Your task to perform on an android device: open app "Indeed Job Search" Image 0: 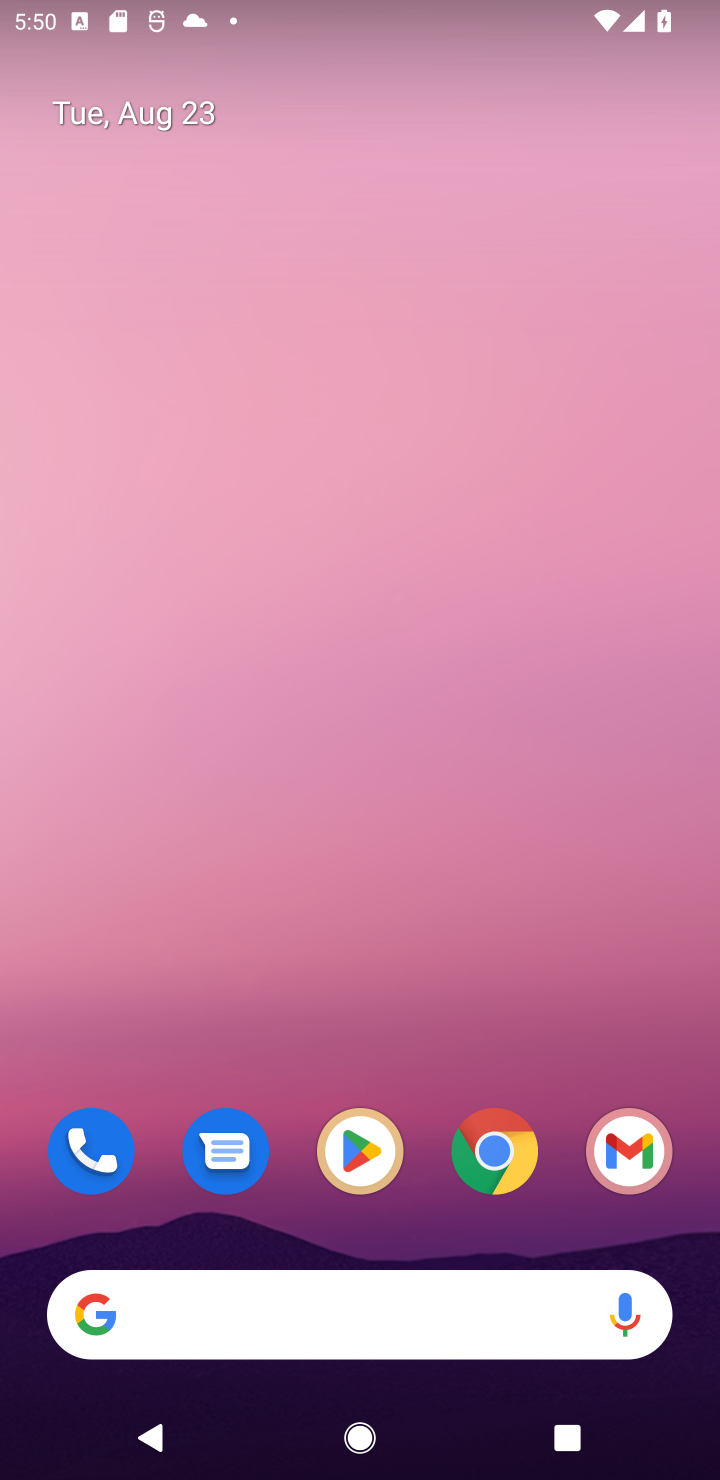
Step 0: press home button
Your task to perform on an android device: open app "Indeed Job Search" Image 1: 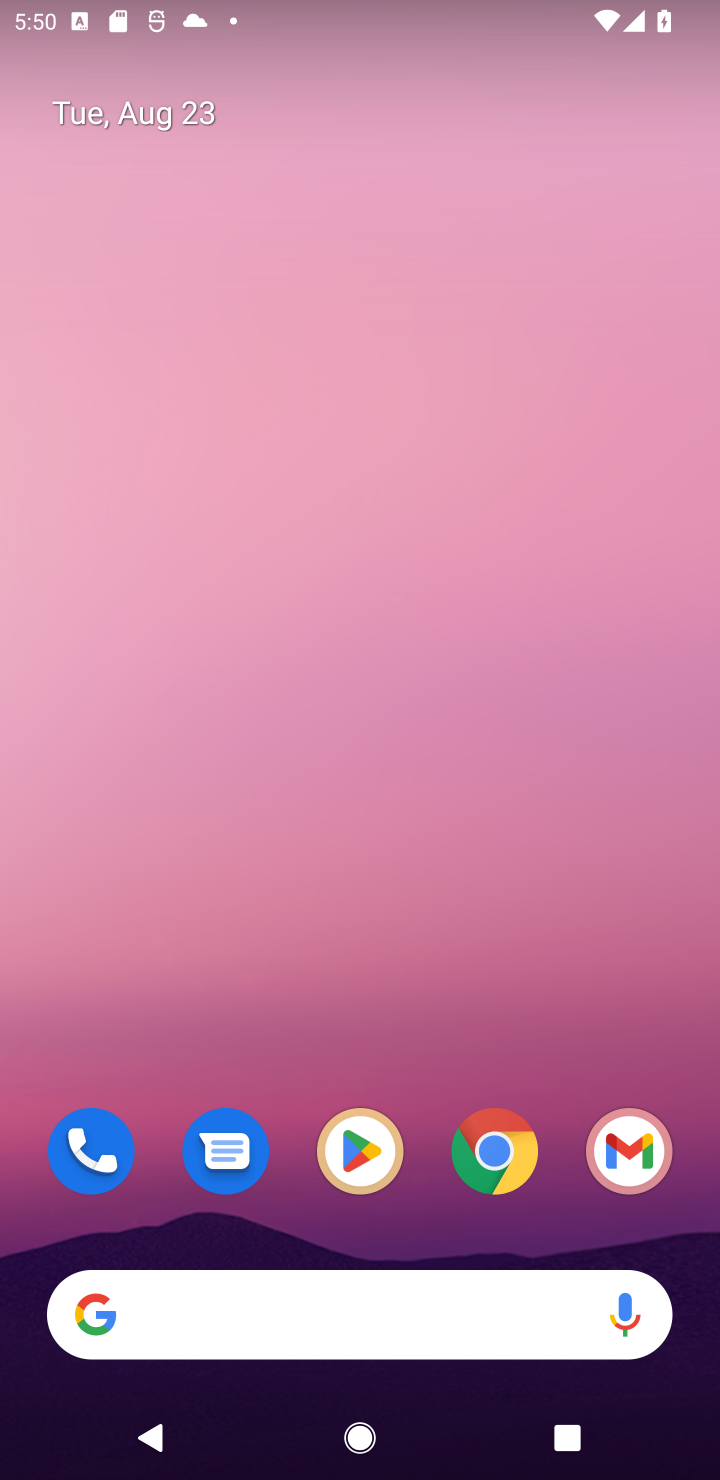
Step 1: click (364, 1149)
Your task to perform on an android device: open app "Indeed Job Search" Image 2: 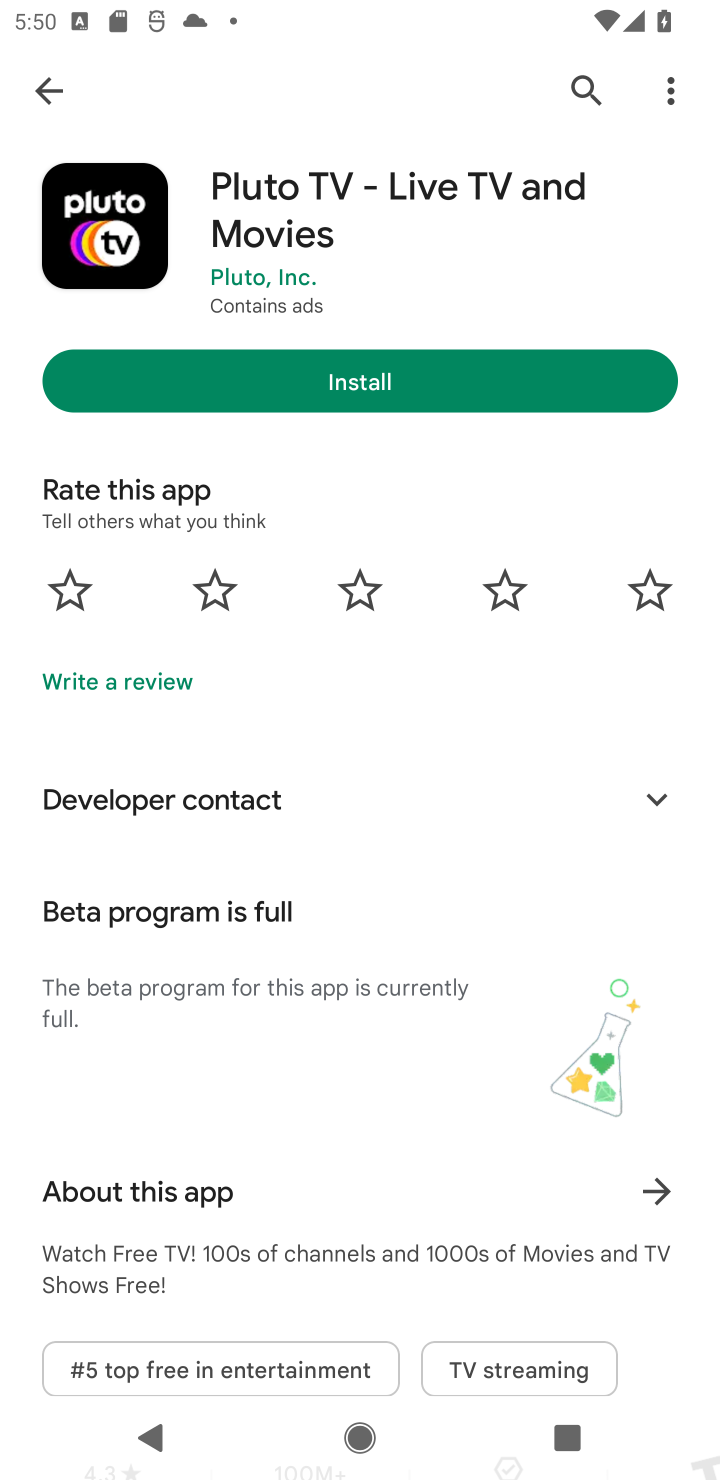
Step 2: click (589, 88)
Your task to perform on an android device: open app "Indeed Job Search" Image 3: 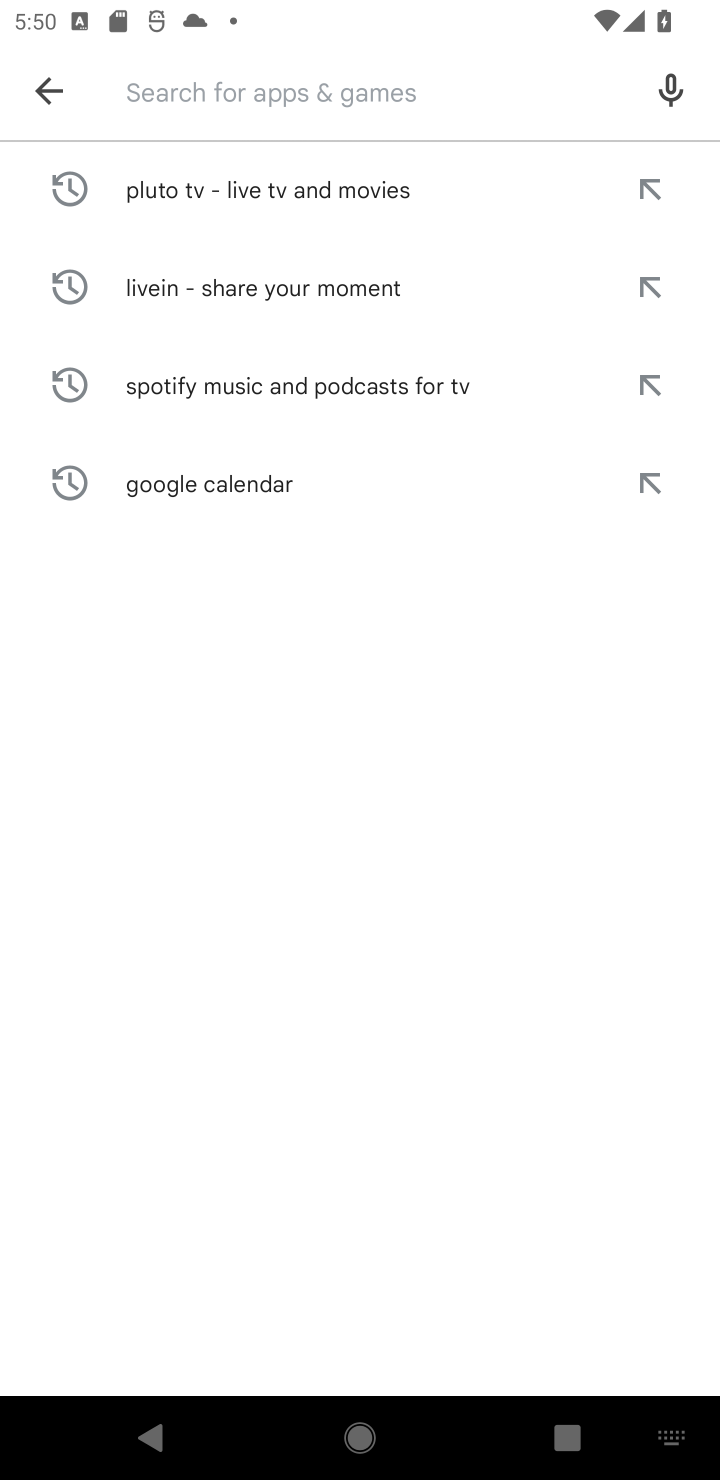
Step 3: type "Indeed Job Search"
Your task to perform on an android device: open app "Indeed Job Search" Image 4: 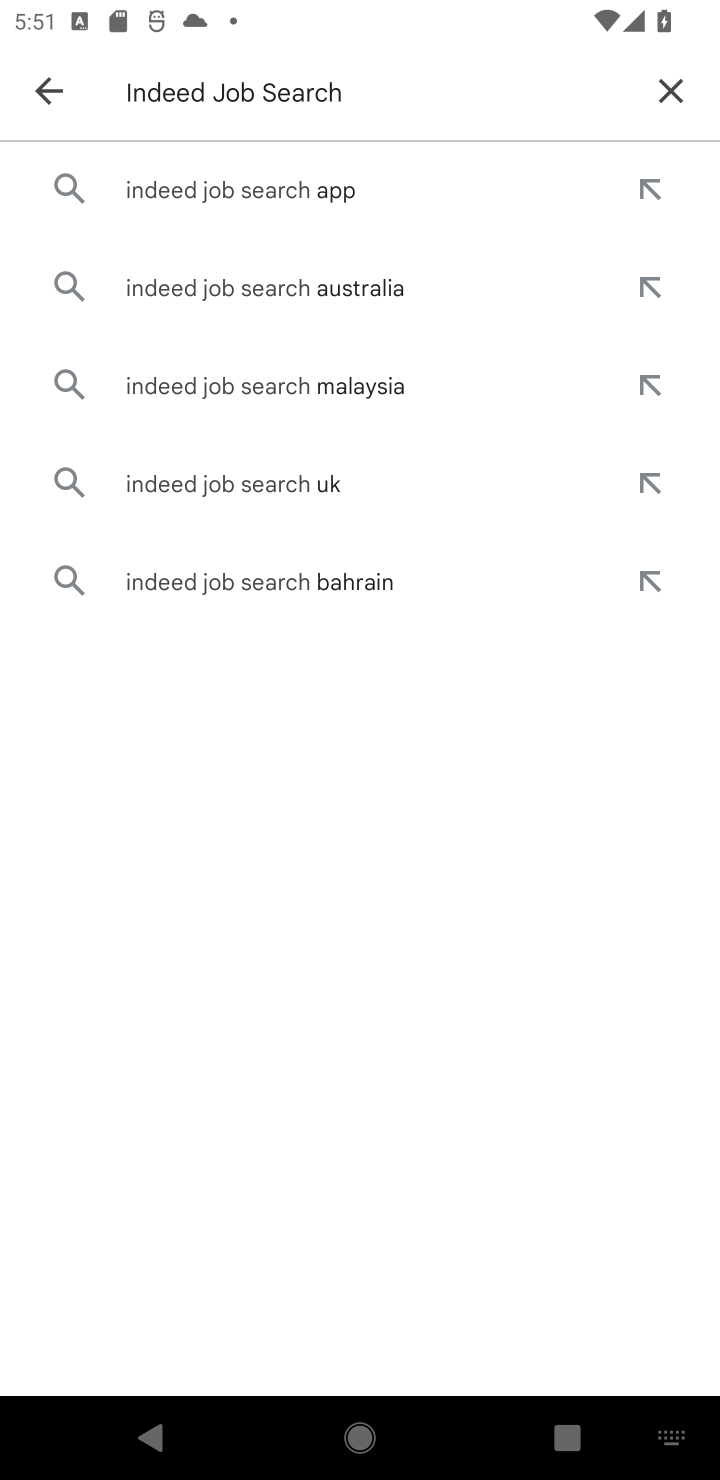
Step 4: click (321, 175)
Your task to perform on an android device: open app "Indeed Job Search" Image 5: 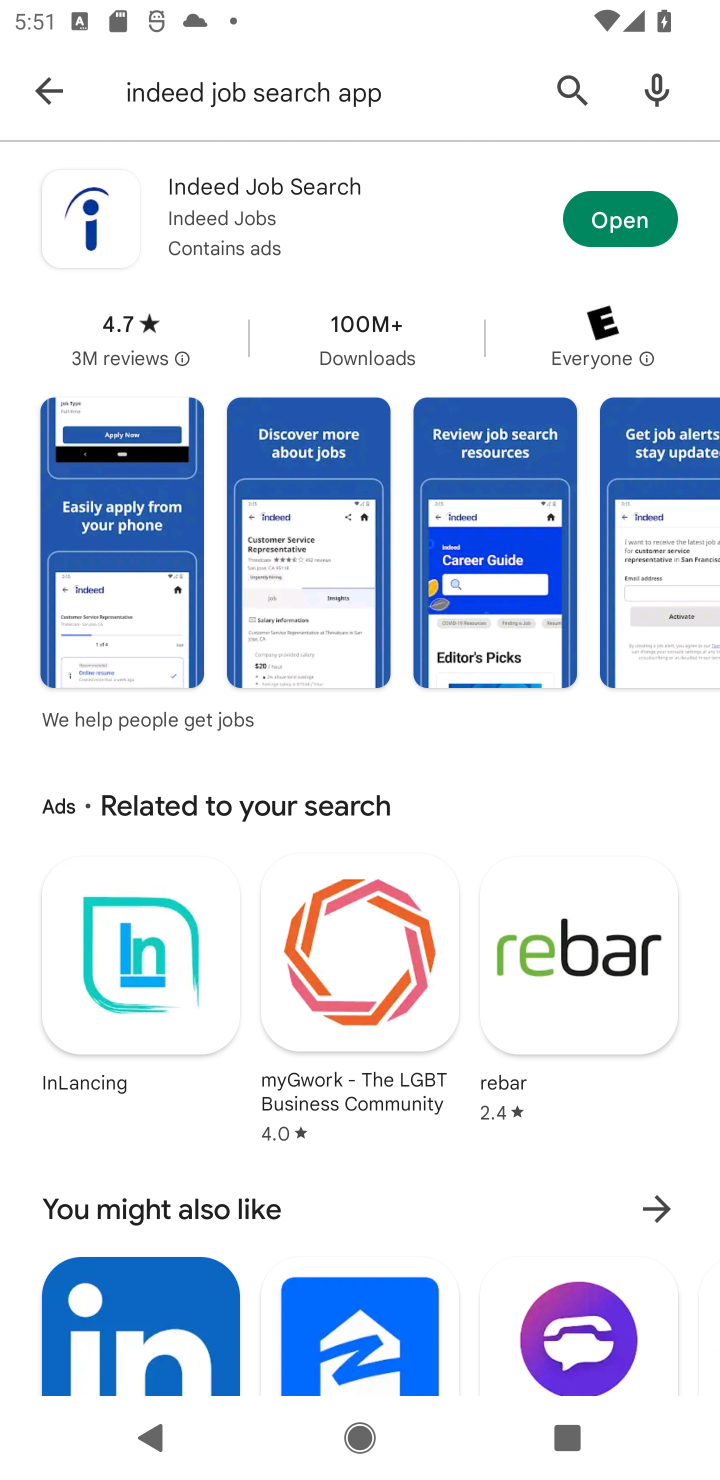
Step 5: click (598, 213)
Your task to perform on an android device: open app "Indeed Job Search" Image 6: 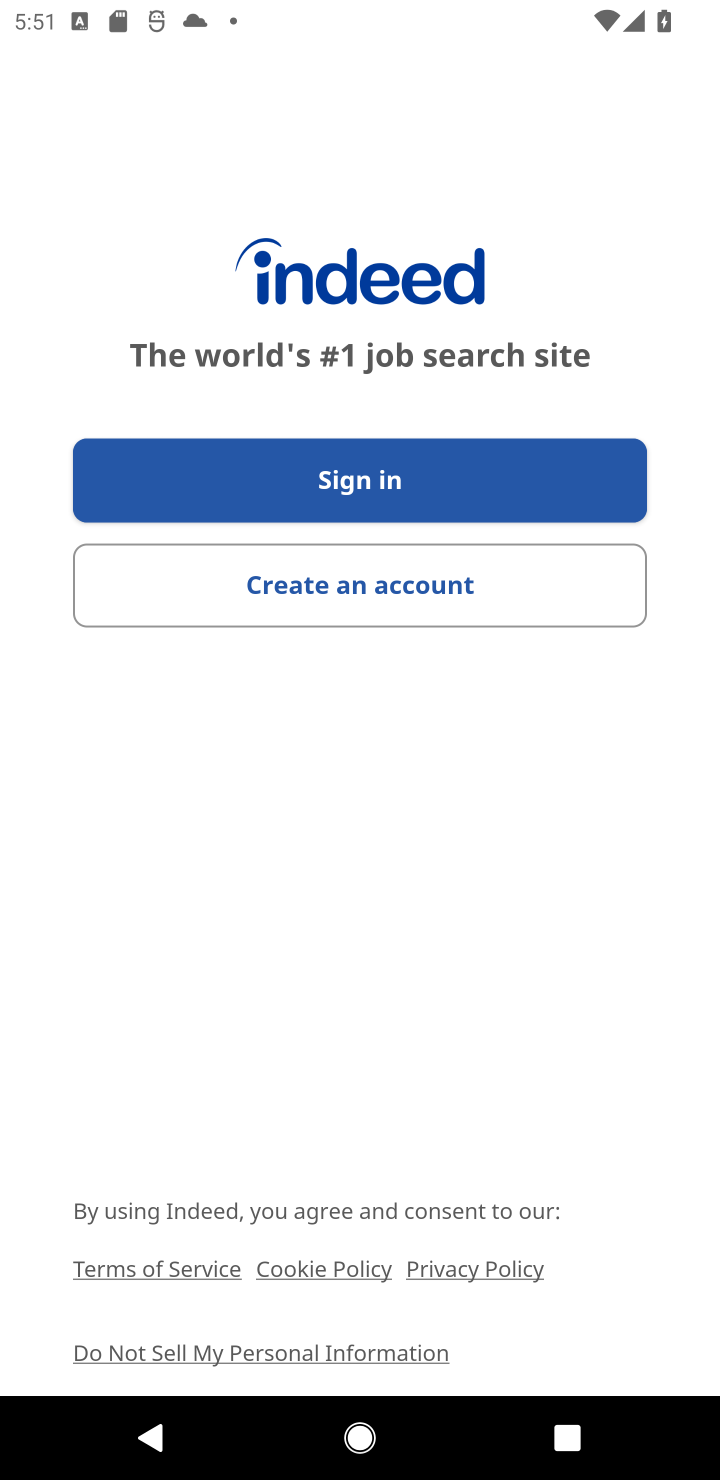
Step 6: task complete